Your task to perform on an android device: delete a single message in the gmail app Image 0: 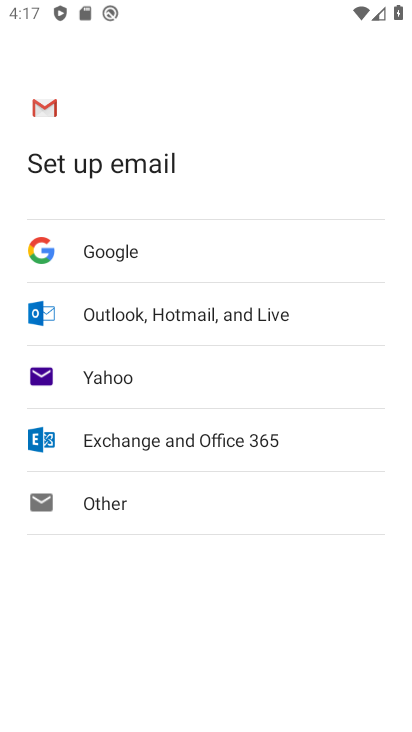
Step 0: press home button
Your task to perform on an android device: delete a single message in the gmail app Image 1: 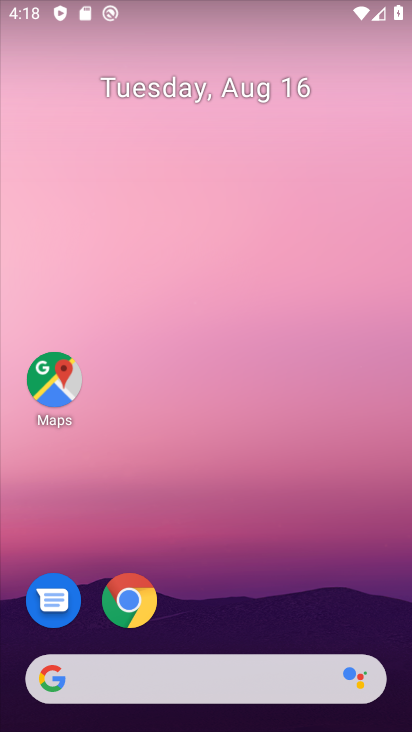
Step 1: drag from (239, 570) to (187, 5)
Your task to perform on an android device: delete a single message in the gmail app Image 2: 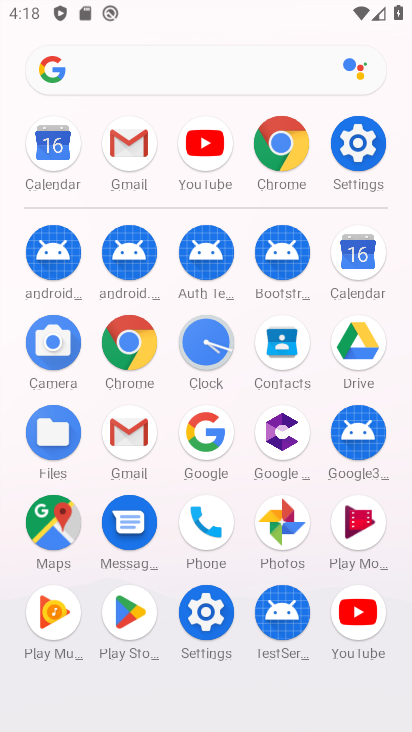
Step 2: click (135, 488)
Your task to perform on an android device: delete a single message in the gmail app Image 3: 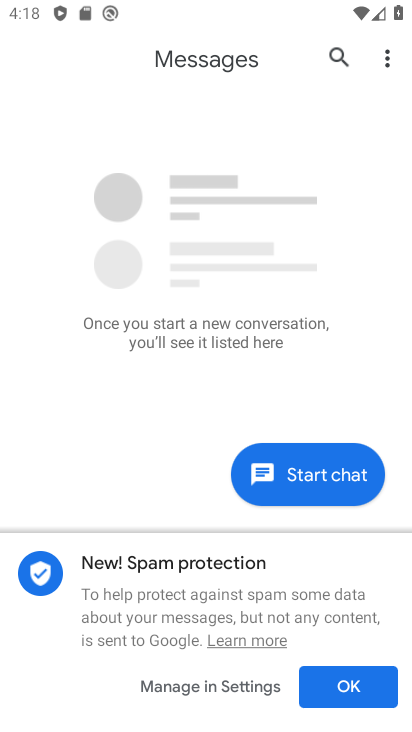
Step 3: press home button
Your task to perform on an android device: delete a single message in the gmail app Image 4: 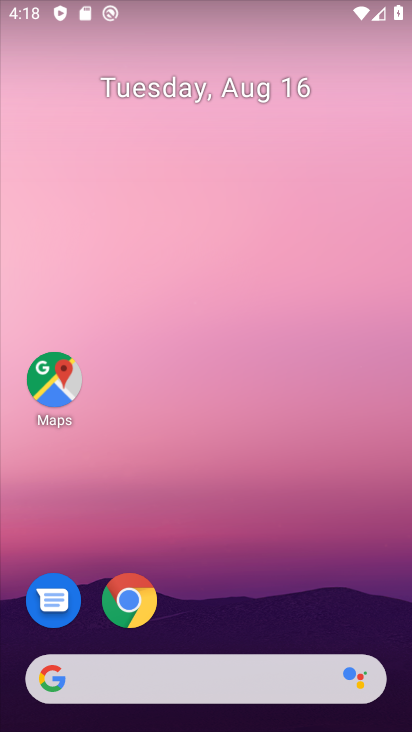
Step 4: drag from (178, 544) to (155, 116)
Your task to perform on an android device: delete a single message in the gmail app Image 5: 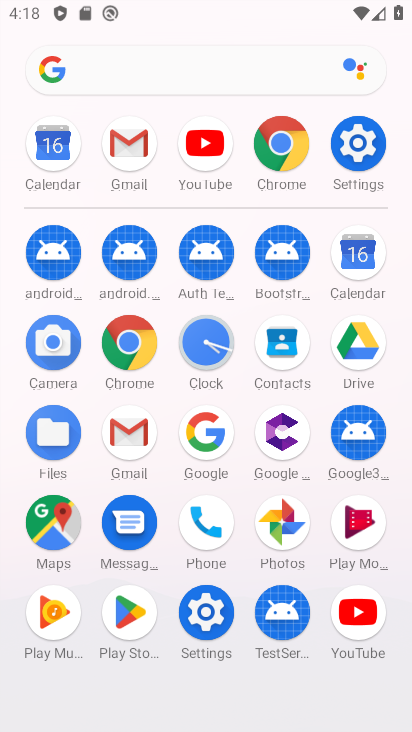
Step 5: click (118, 433)
Your task to perform on an android device: delete a single message in the gmail app Image 6: 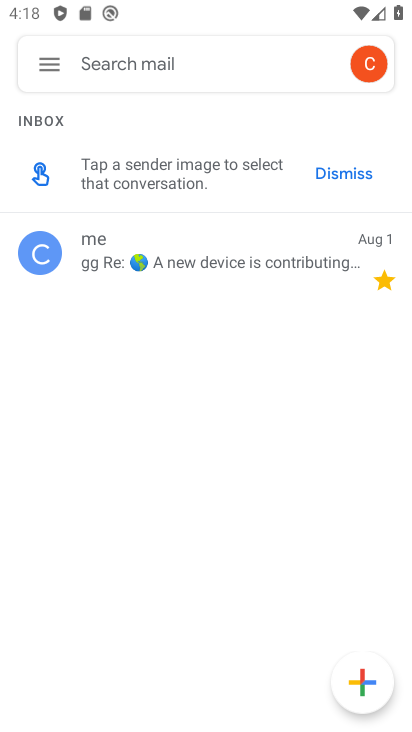
Step 6: click (38, 250)
Your task to perform on an android device: delete a single message in the gmail app Image 7: 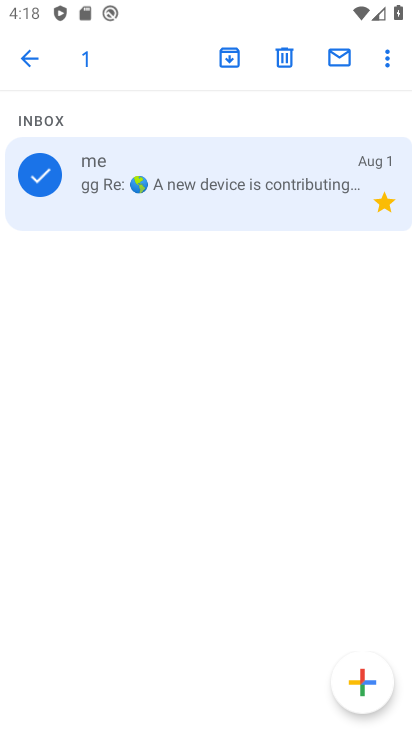
Step 7: click (283, 51)
Your task to perform on an android device: delete a single message in the gmail app Image 8: 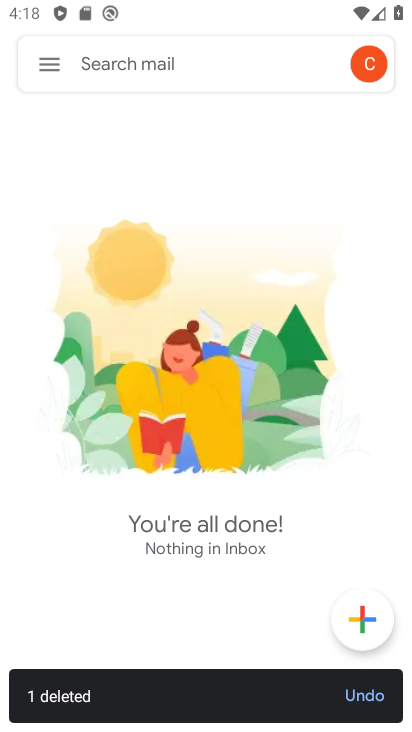
Step 8: task complete